Your task to perform on an android device: Go to calendar. Show me events next week Image 0: 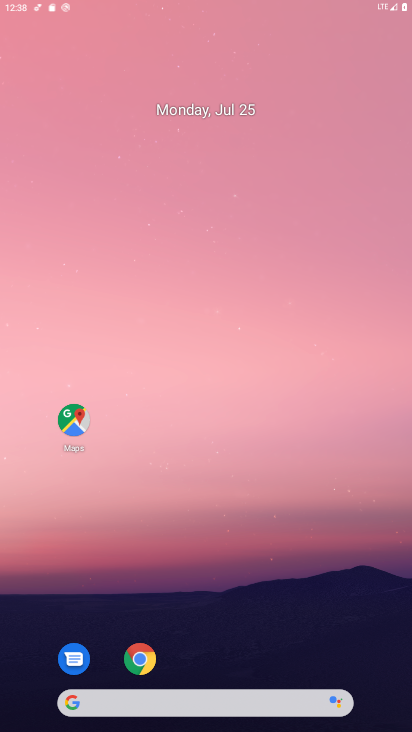
Step 0: press home button
Your task to perform on an android device: Go to calendar. Show me events next week Image 1: 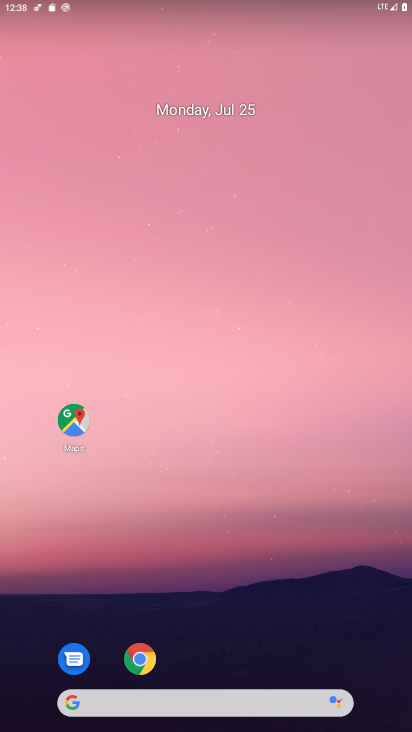
Step 1: drag from (193, 662) to (195, 33)
Your task to perform on an android device: Go to calendar. Show me events next week Image 2: 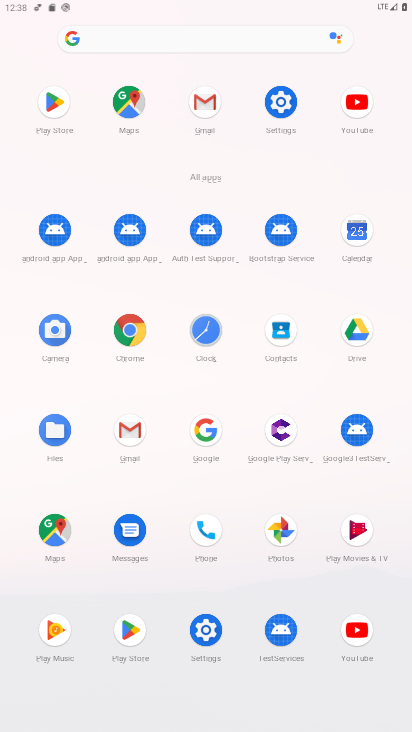
Step 2: click (354, 237)
Your task to perform on an android device: Go to calendar. Show me events next week Image 3: 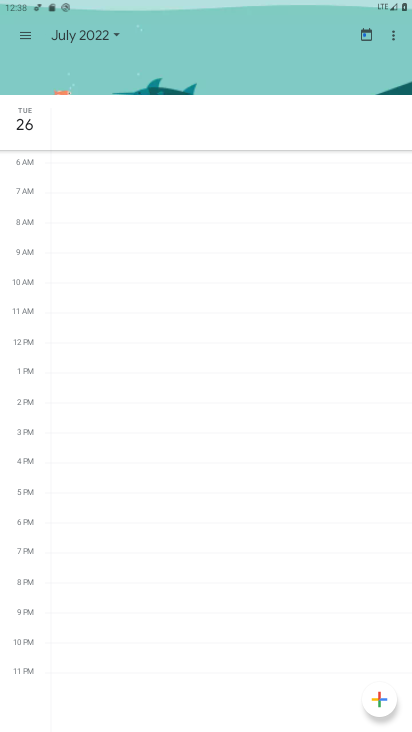
Step 3: click (24, 35)
Your task to perform on an android device: Go to calendar. Show me events next week Image 4: 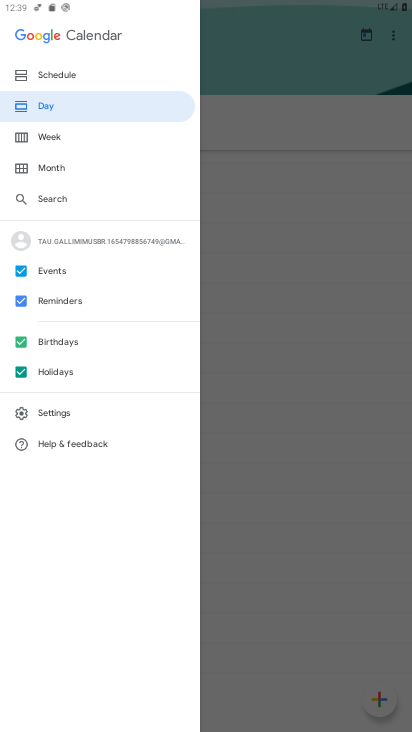
Step 4: click (21, 370)
Your task to perform on an android device: Go to calendar. Show me events next week Image 5: 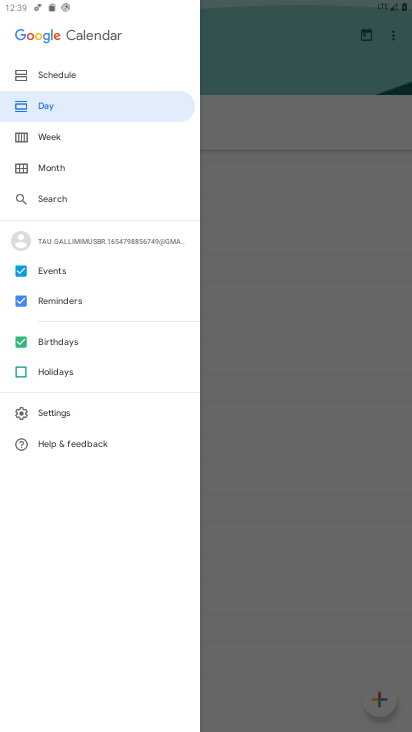
Step 5: click (17, 342)
Your task to perform on an android device: Go to calendar. Show me events next week Image 6: 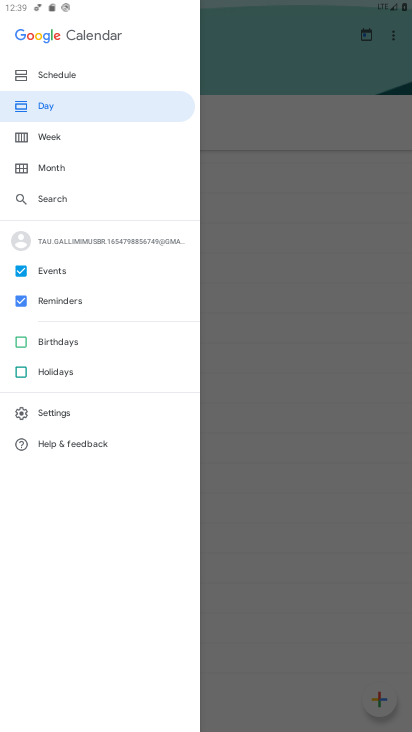
Step 6: click (18, 298)
Your task to perform on an android device: Go to calendar. Show me events next week Image 7: 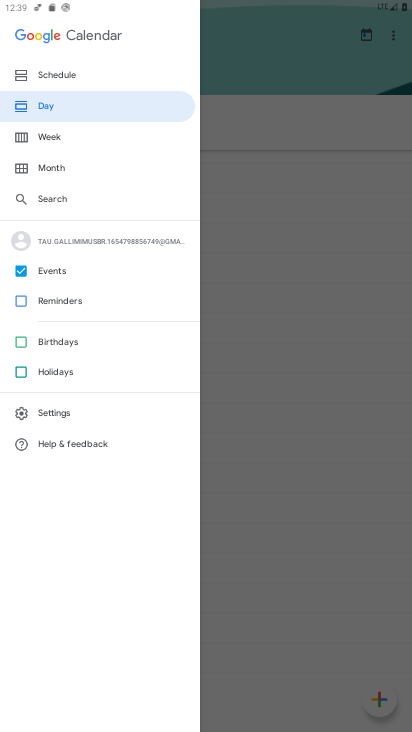
Step 7: click (21, 134)
Your task to perform on an android device: Go to calendar. Show me events next week Image 8: 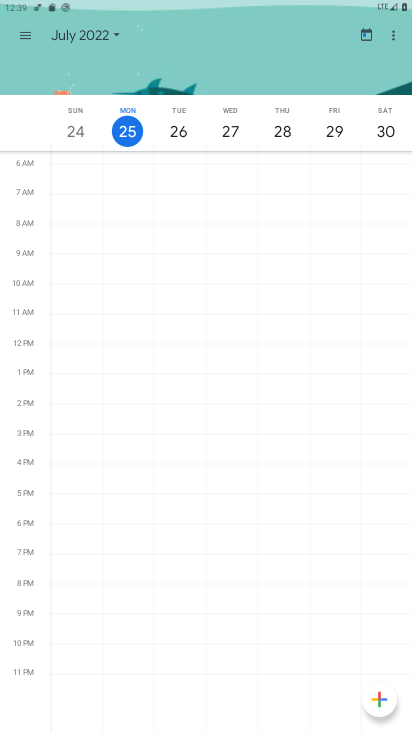
Step 8: task complete